Your task to perform on an android device: Check the news Image 0: 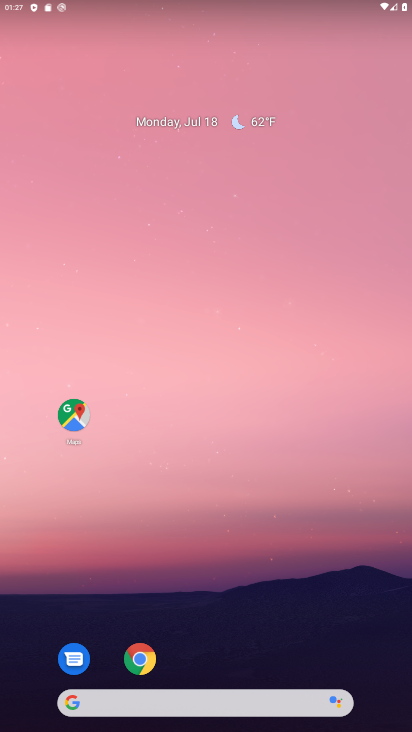
Step 0: drag from (264, 449) to (203, 0)
Your task to perform on an android device: Check the news Image 1: 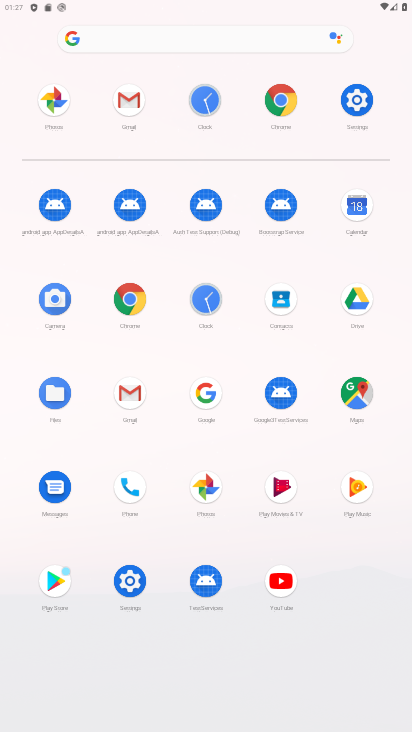
Step 1: click (284, 94)
Your task to perform on an android device: Check the news Image 2: 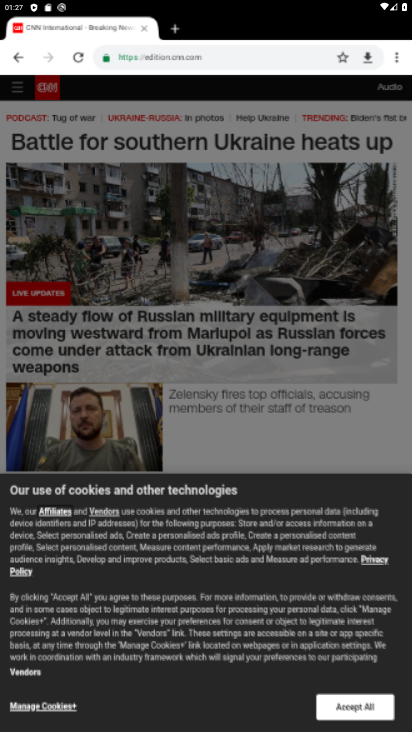
Step 2: click (190, 67)
Your task to perform on an android device: Check the news Image 3: 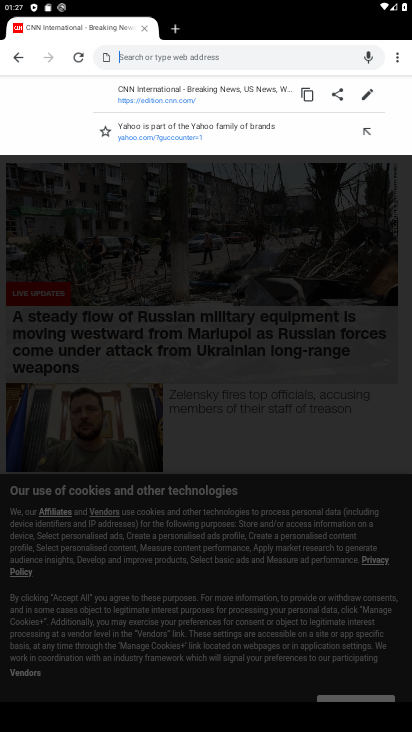
Step 3: type "news"
Your task to perform on an android device: Check the news Image 4: 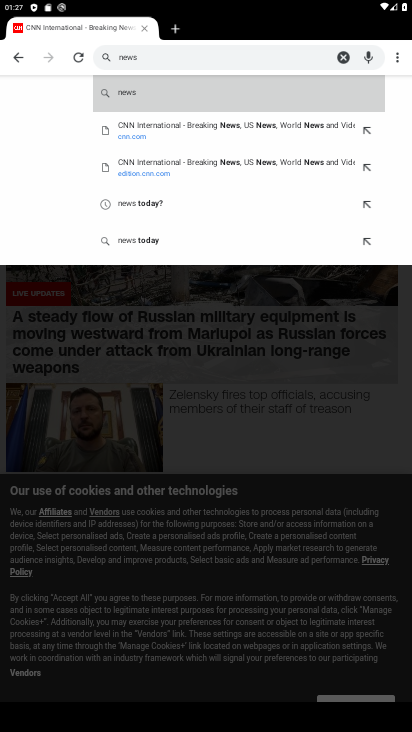
Step 4: click (130, 94)
Your task to perform on an android device: Check the news Image 5: 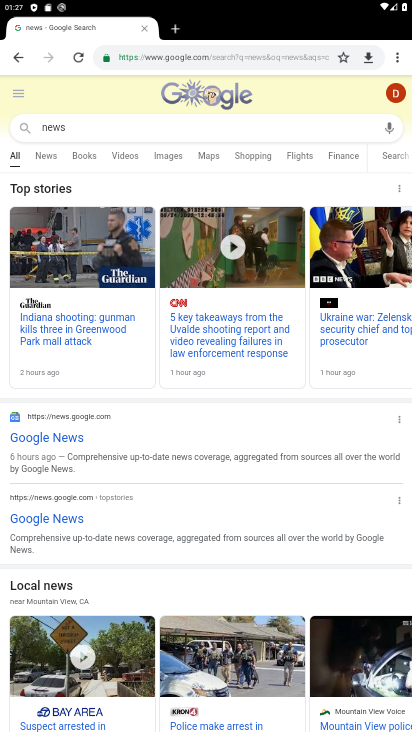
Step 5: click (51, 438)
Your task to perform on an android device: Check the news Image 6: 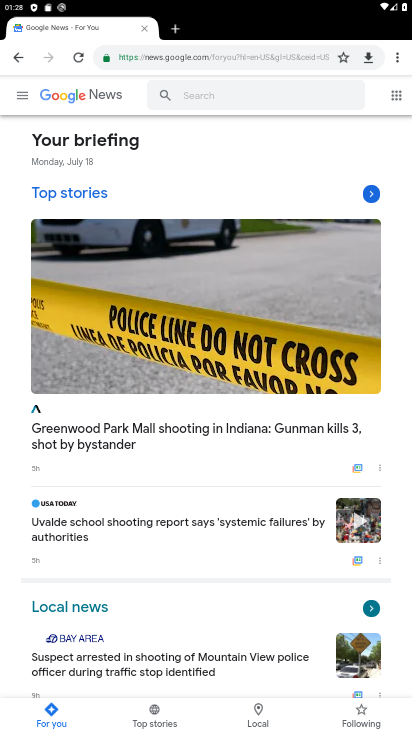
Step 6: task complete